Your task to perform on an android device: add a contact Image 0: 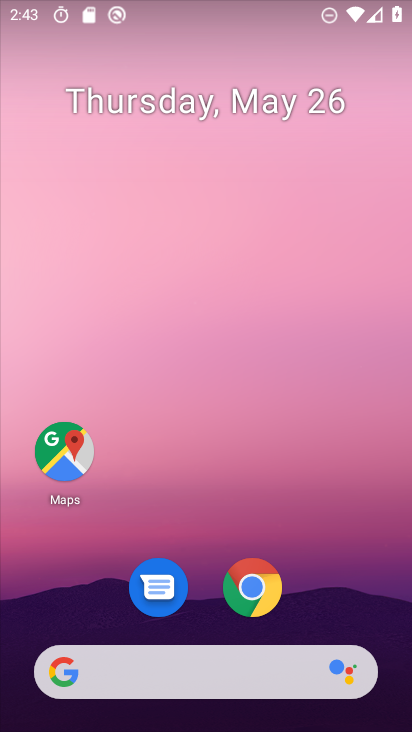
Step 0: drag from (312, 551) to (274, 207)
Your task to perform on an android device: add a contact Image 1: 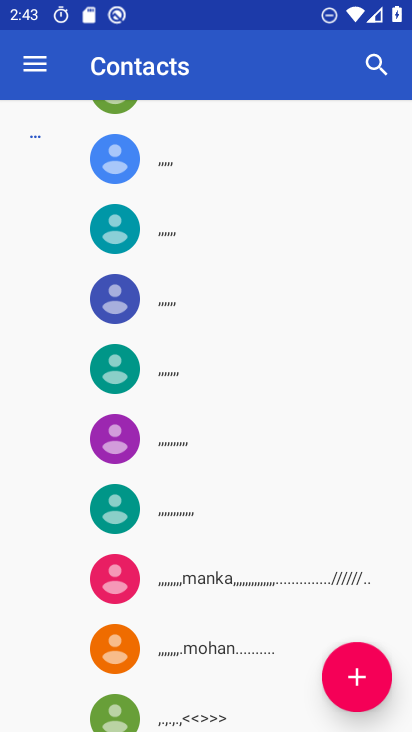
Step 1: press home button
Your task to perform on an android device: add a contact Image 2: 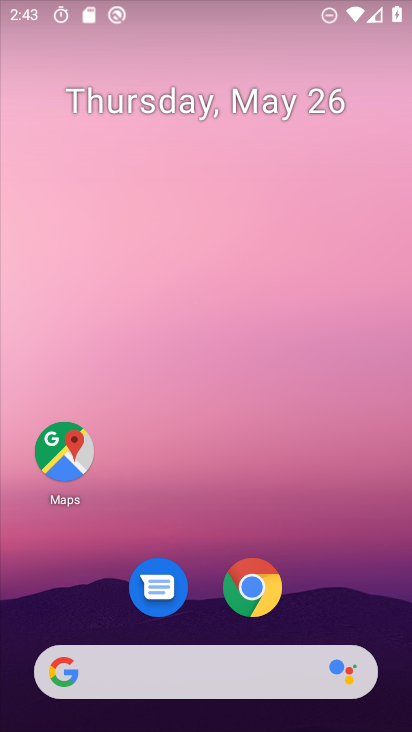
Step 2: drag from (346, 573) to (325, 193)
Your task to perform on an android device: add a contact Image 3: 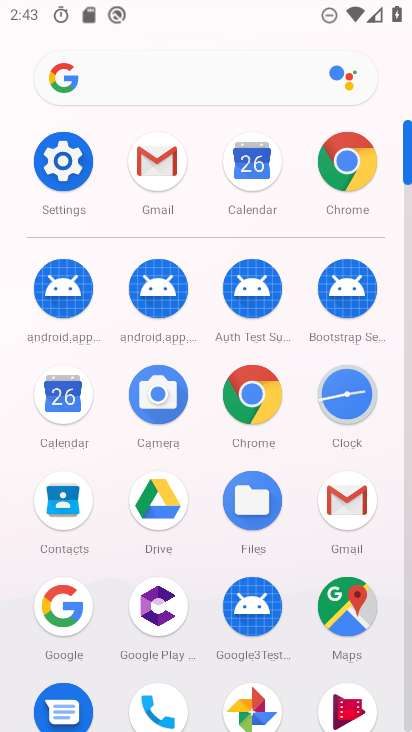
Step 3: click (71, 507)
Your task to perform on an android device: add a contact Image 4: 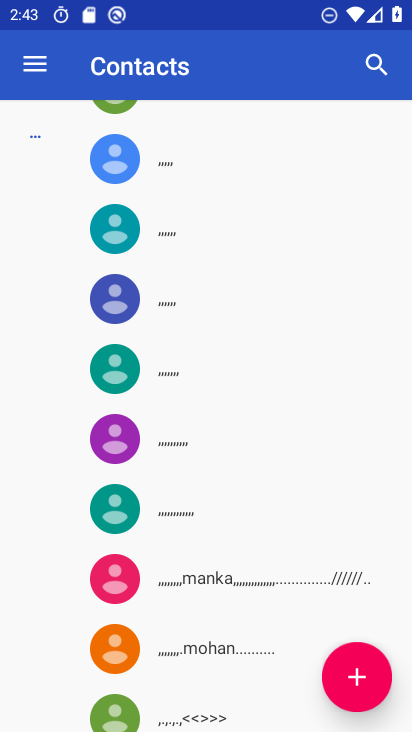
Step 4: click (363, 674)
Your task to perform on an android device: add a contact Image 5: 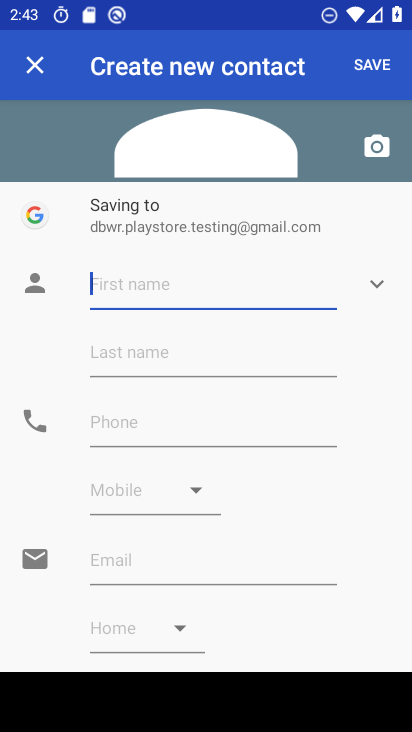
Step 5: type "pariwad"
Your task to perform on an android device: add a contact Image 6: 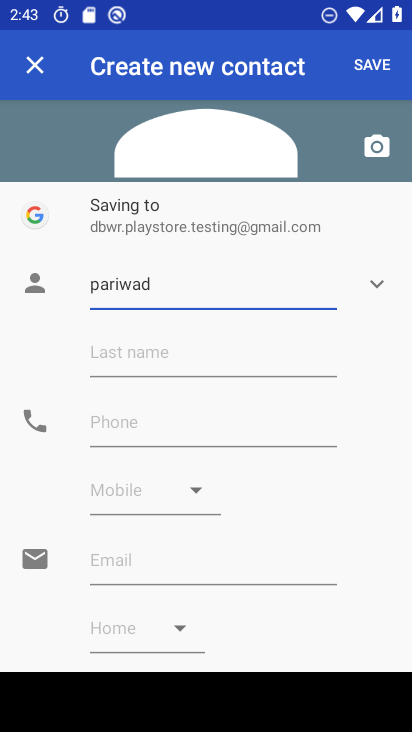
Step 6: click (370, 73)
Your task to perform on an android device: add a contact Image 7: 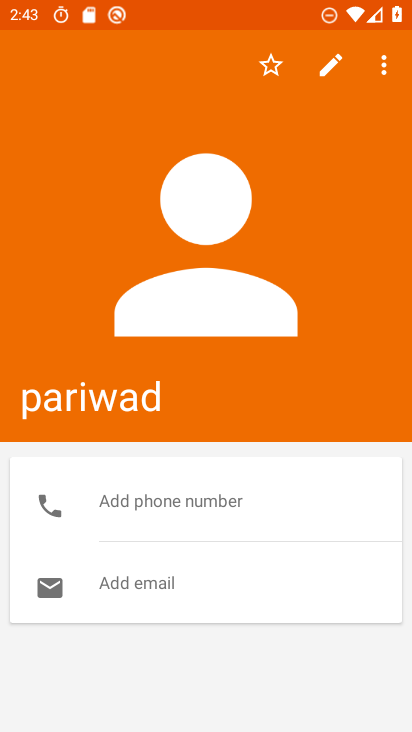
Step 7: task complete